Your task to perform on an android device: What's the weather going to be tomorrow? Image 0: 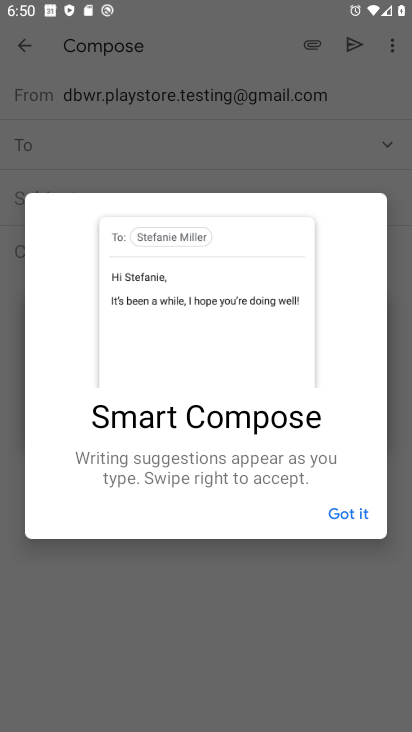
Step 0: press home button
Your task to perform on an android device: What's the weather going to be tomorrow? Image 1: 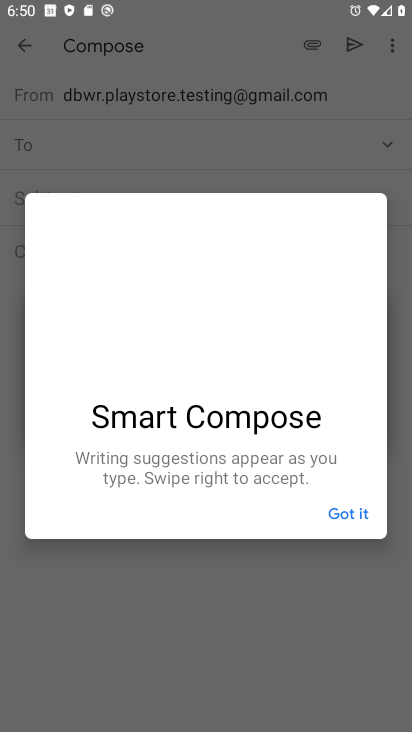
Step 1: drag from (344, 626) to (267, 9)
Your task to perform on an android device: What's the weather going to be tomorrow? Image 2: 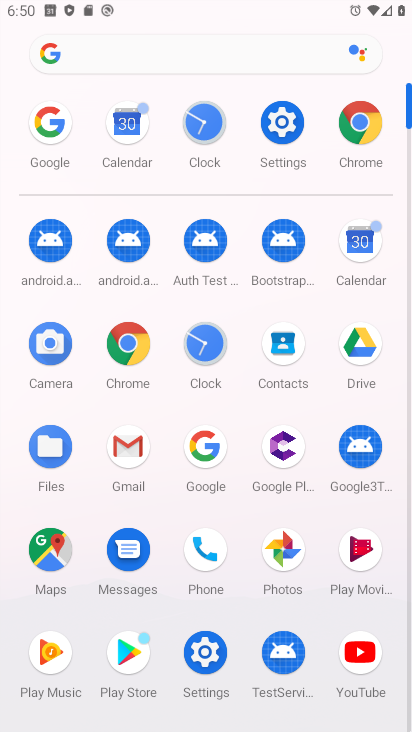
Step 2: click (198, 456)
Your task to perform on an android device: What's the weather going to be tomorrow? Image 3: 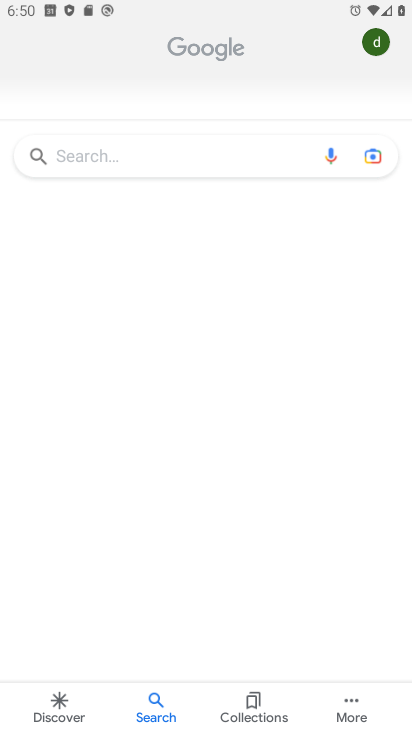
Step 3: click (129, 166)
Your task to perform on an android device: What's the weather going to be tomorrow? Image 4: 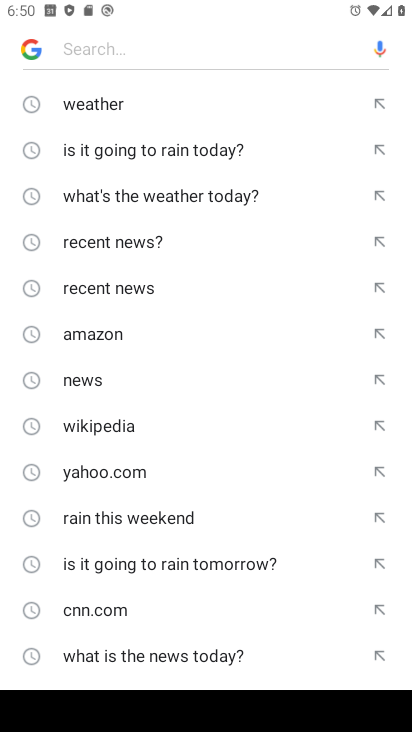
Step 4: drag from (198, 658) to (212, 182)
Your task to perform on an android device: What's the weather going to be tomorrow? Image 5: 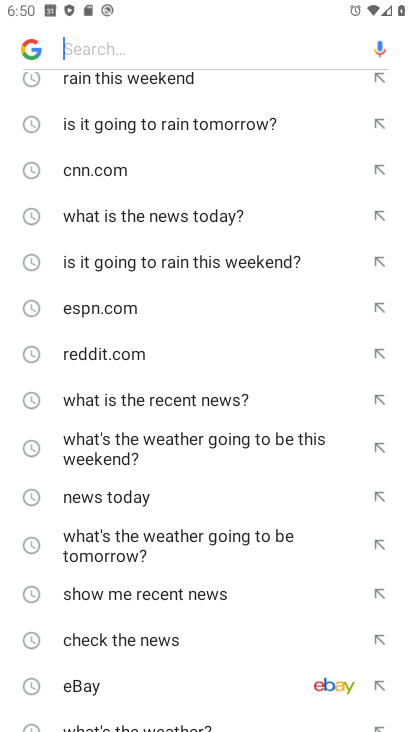
Step 5: click (148, 567)
Your task to perform on an android device: What's the weather going to be tomorrow? Image 6: 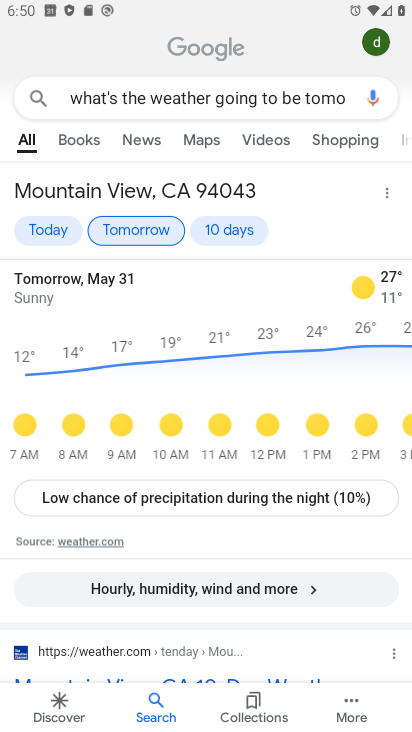
Step 6: task complete